Your task to perform on an android device: Open the calendar app, open the side menu, and click the "Day" option Image 0: 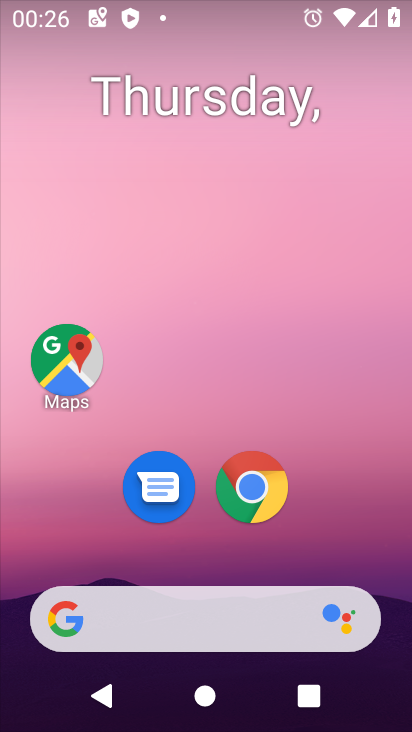
Step 0: drag from (382, 563) to (270, 10)
Your task to perform on an android device: Open the calendar app, open the side menu, and click the "Day" option Image 1: 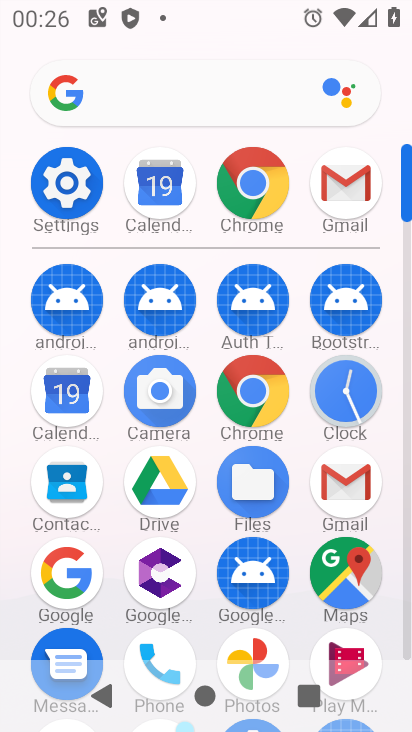
Step 1: click (158, 183)
Your task to perform on an android device: Open the calendar app, open the side menu, and click the "Day" option Image 2: 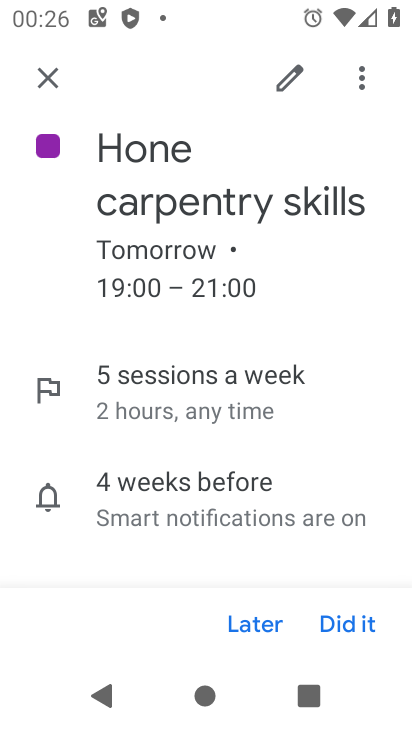
Step 2: click (58, 85)
Your task to perform on an android device: Open the calendar app, open the side menu, and click the "Day" option Image 3: 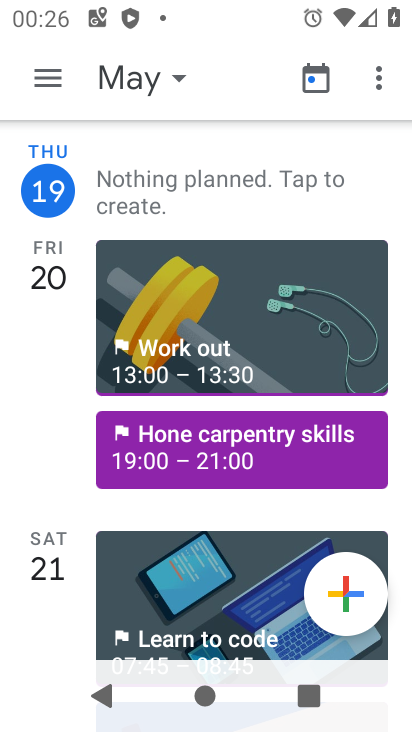
Step 3: click (48, 73)
Your task to perform on an android device: Open the calendar app, open the side menu, and click the "Day" option Image 4: 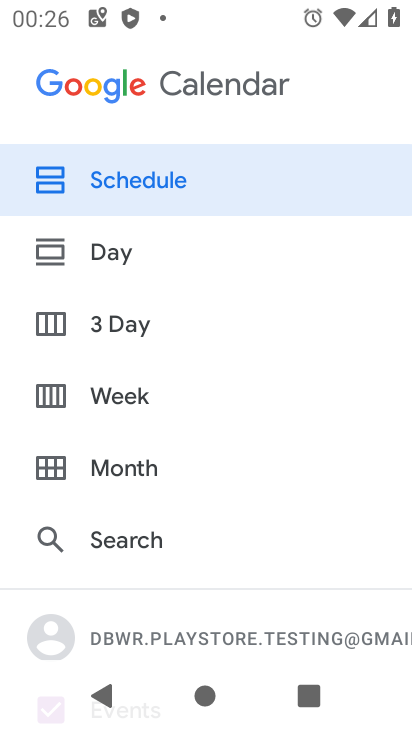
Step 4: click (91, 255)
Your task to perform on an android device: Open the calendar app, open the side menu, and click the "Day" option Image 5: 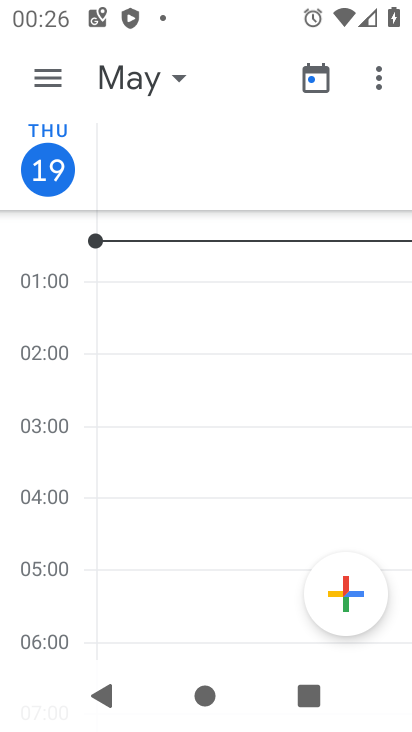
Step 5: task complete